Your task to perform on an android device: turn off airplane mode Image 0: 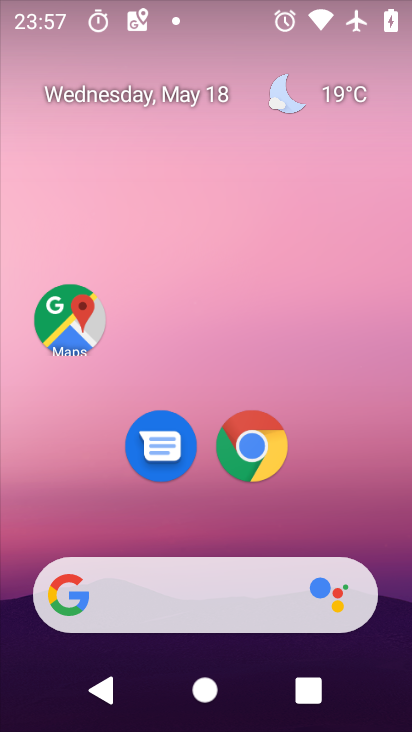
Step 0: press home button
Your task to perform on an android device: turn off airplane mode Image 1: 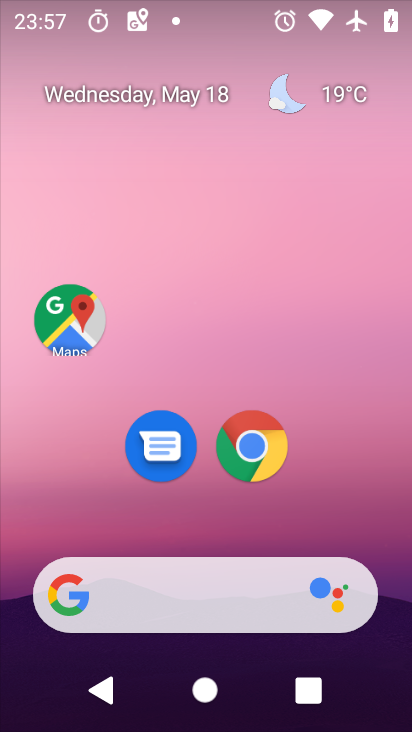
Step 1: drag from (170, 603) to (310, 177)
Your task to perform on an android device: turn off airplane mode Image 2: 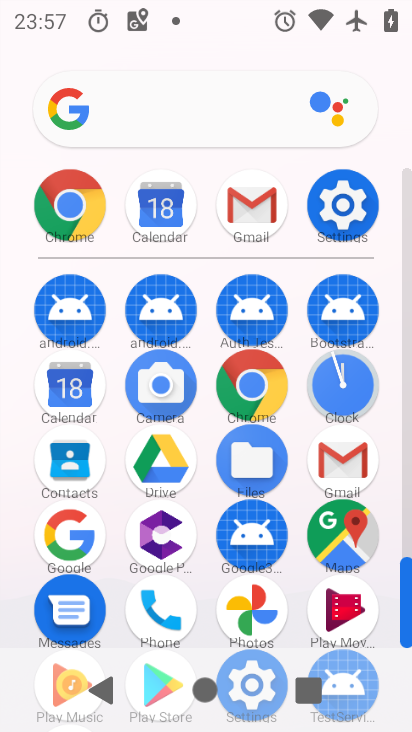
Step 2: click (333, 225)
Your task to perform on an android device: turn off airplane mode Image 3: 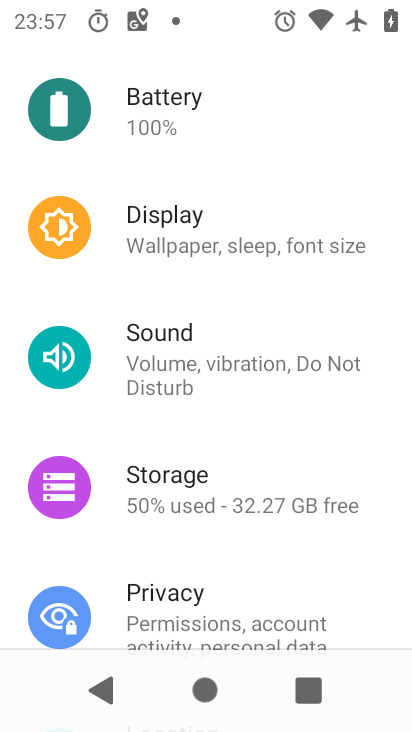
Step 3: drag from (327, 128) to (259, 554)
Your task to perform on an android device: turn off airplane mode Image 4: 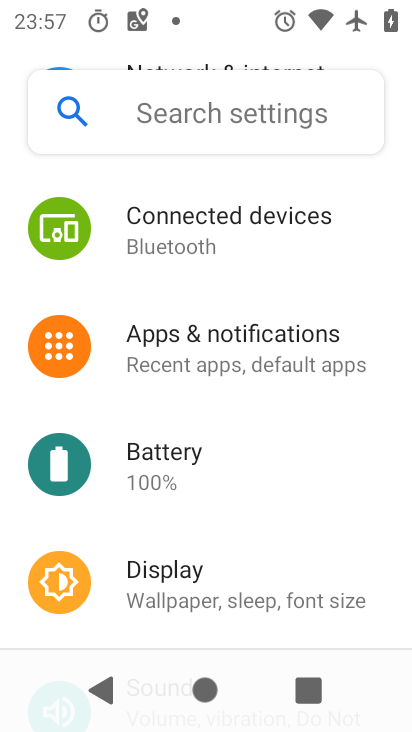
Step 4: drag from (349, 220) to (246, 619)
Your task to perform on an android device: turn off airplane mode Image 5: 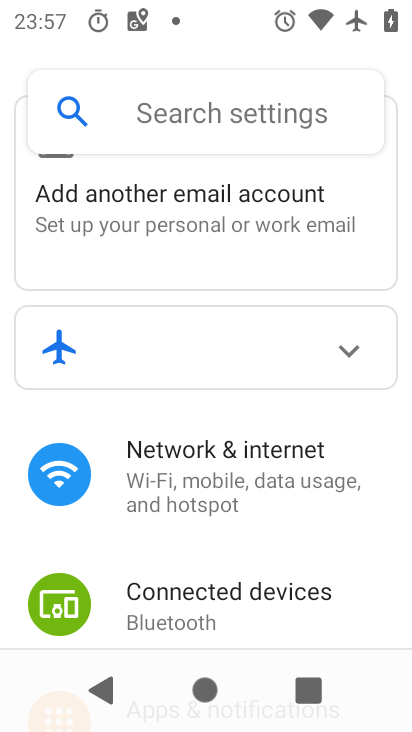
Step 5: click (276, 457)
Your task to perform on an android device: turn off airplane mode Image 6: 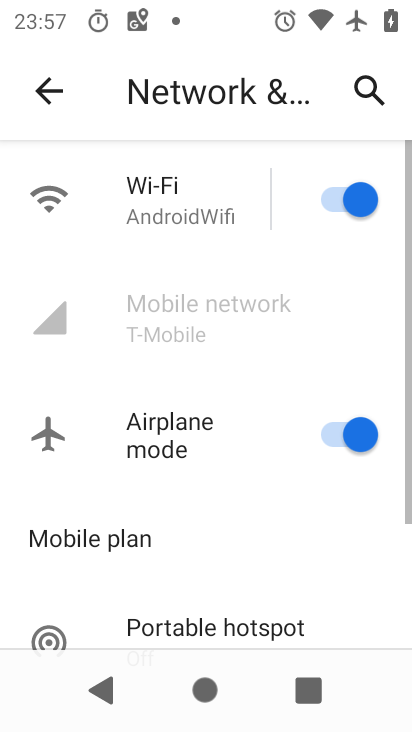
Step 6: click (338, 431)
Your task to perform on an android device: turn off airplane mode Image 7: 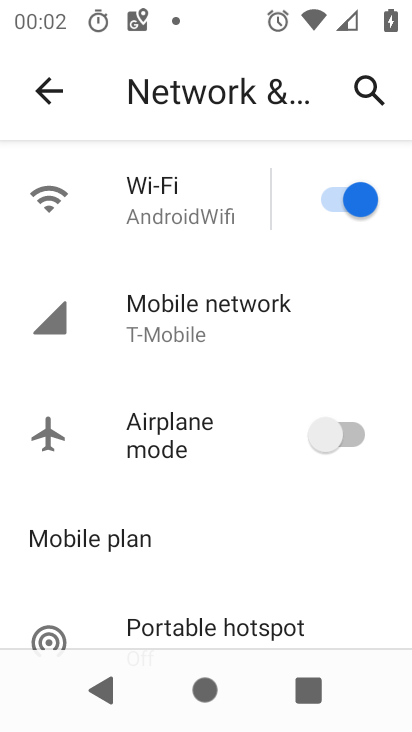
Step 7: task complete